Your task to perform on an android device: Open Yahoo.com Image 0: 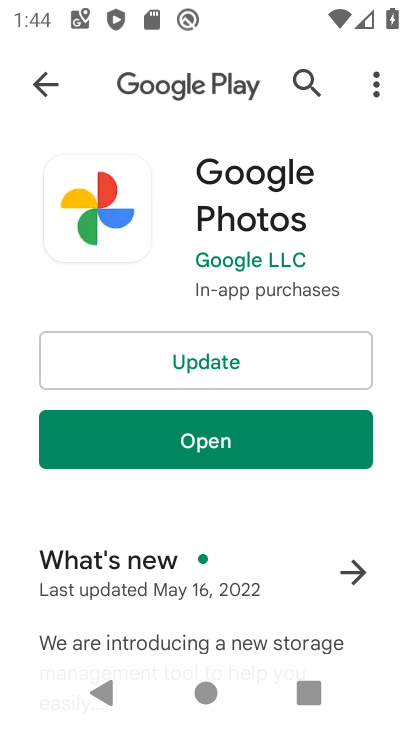
Step 0: press home button
Your task to perform on an android device: Open Yahoo.com Image 1: 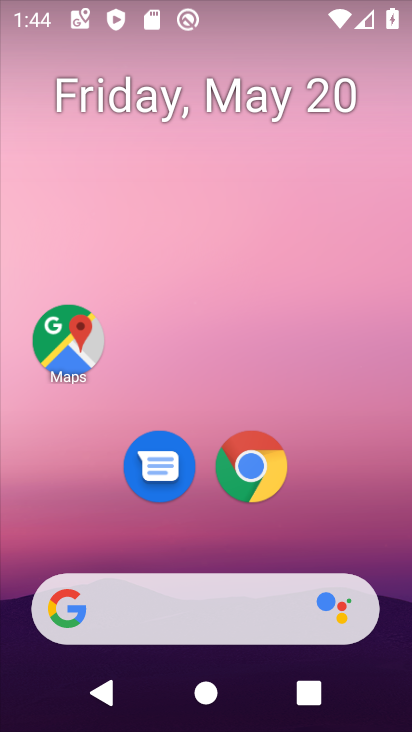
Step 1: click (252, 475)
Your task to perform on an android device: Open Yahoo.com Image 2: 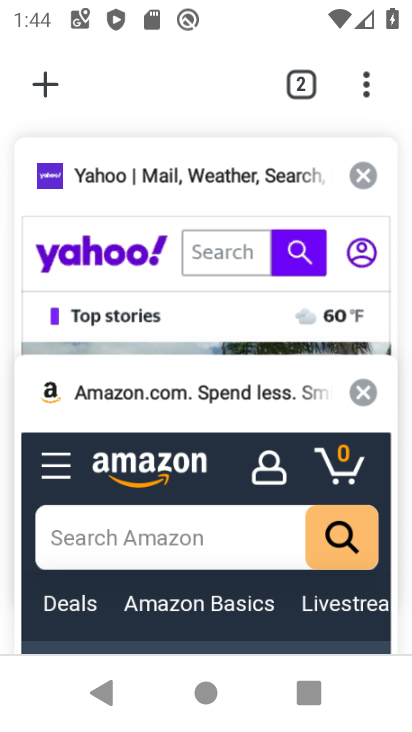
Step 2: click (110, 302)
Your task to perform on an android device: Open Yahoo.com Image 3: 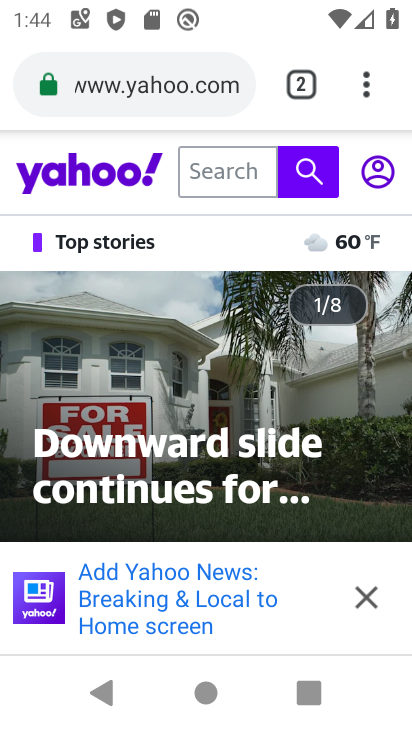
Step 3: click (369, 589)
Your task to perform on an android device: Open Yahoo.com Image 4: 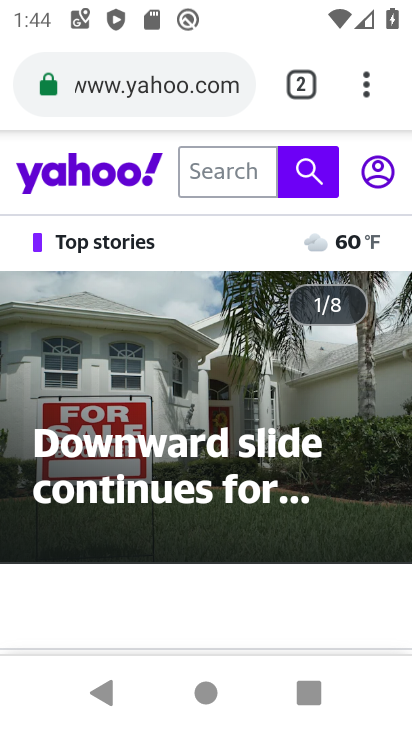
Step 4: task complete